Your task to perform on an android device: change your default location settings in chrome Image 0: 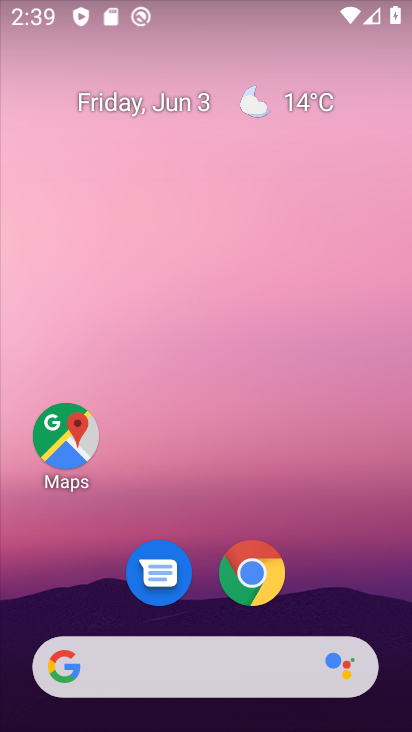
Step 0: drag from (283, 645) to (218, 54)
Your task to perform on an android device: change your default location settings in chrome Image 1: 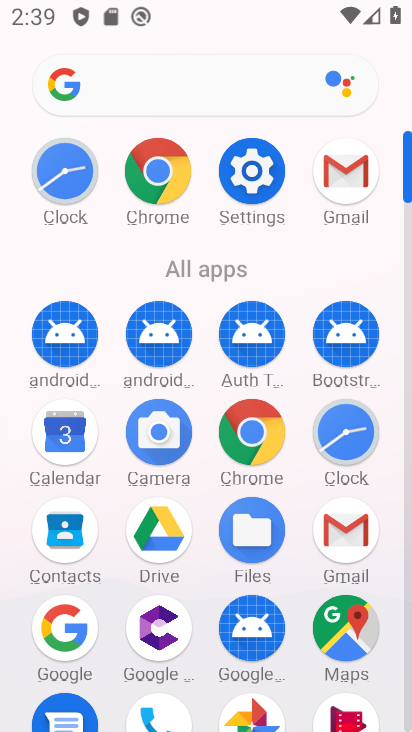
Step 1: click (250, 433)
Your task to perform on an android device: change your default location settings in chrome Image 2: 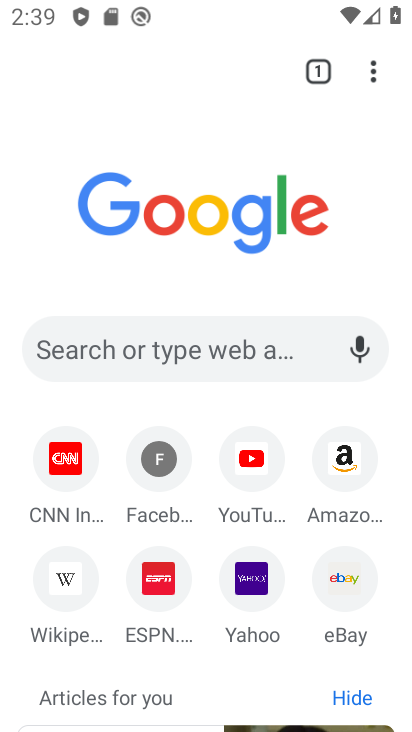
Step 2: click (376, 77)
Your task to perform on an android device: change your default location settings in chrome Image 3: 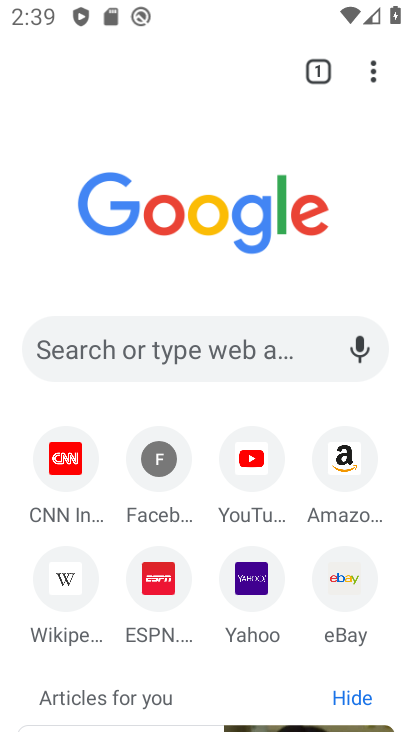
Step 3: drag from (366, 102) to (152, 610)
Your task to perform on an android device: change your default location settings in chrome Image 4: 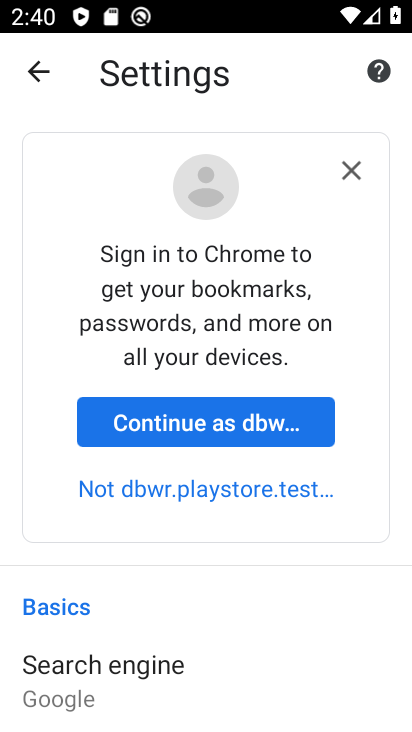
Step 4: drag from (237, 676) to (214, 121)
Your task to perform on an android device: change your default location settings in chrome Image 5: 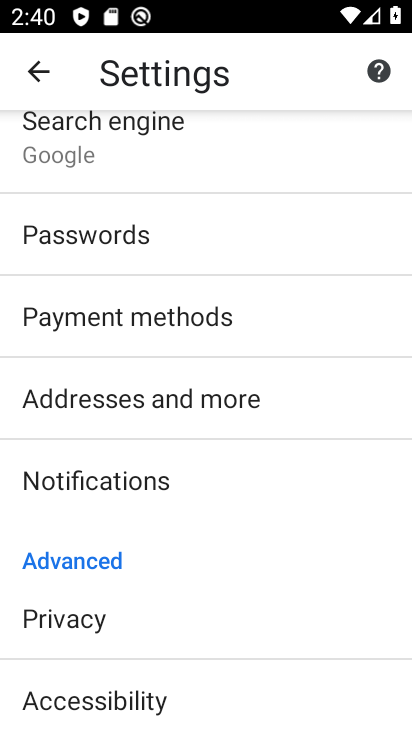
Step 5: drag from (135, 644) to (133, 513)
Your task to perform on an android device: change your default location settings in chrome Image 6: 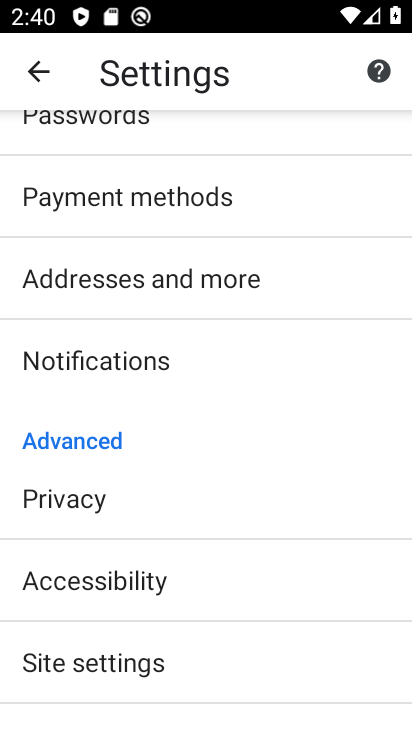
Step 6: click (137, 653)
Your task to perform on an android device: change your default location settings in chrome Image 7: 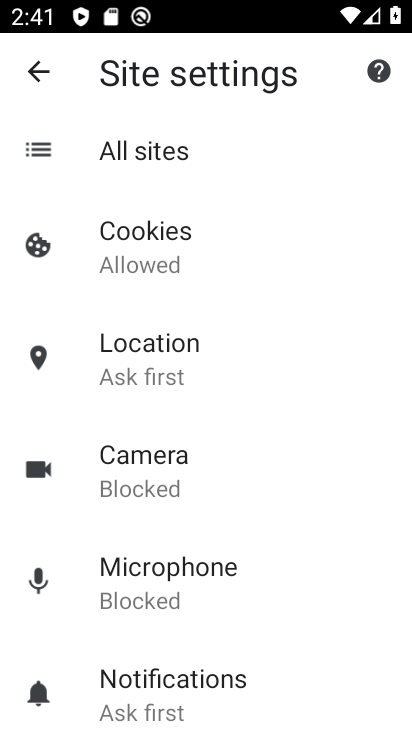
Step 7: click (200, 380)
Your task to perform on an android device: change your default location settings in chrome Image 8: 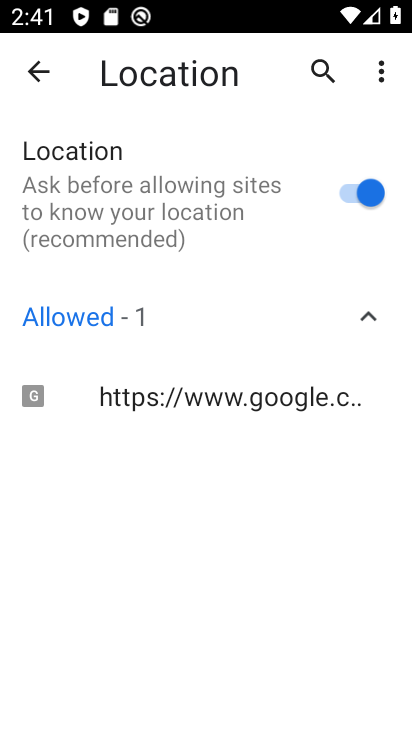
Step 8: task complete